Your task to perform on an android device: turn pop-ups off in chrome Image 0: 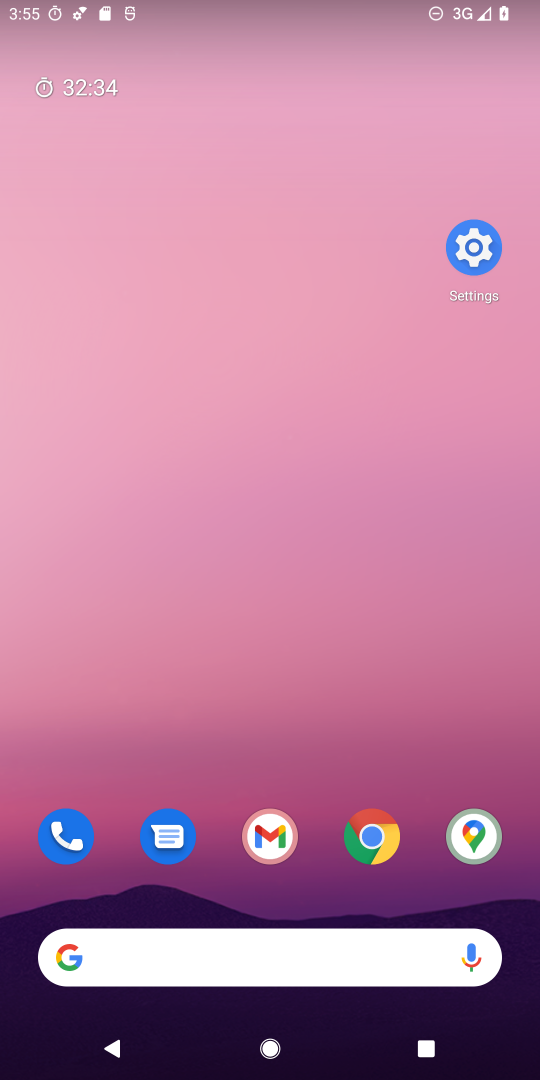
Step 0: click (370, 837)
Your task to perform on an android device: turn pop-ups off in chrome Image 1: 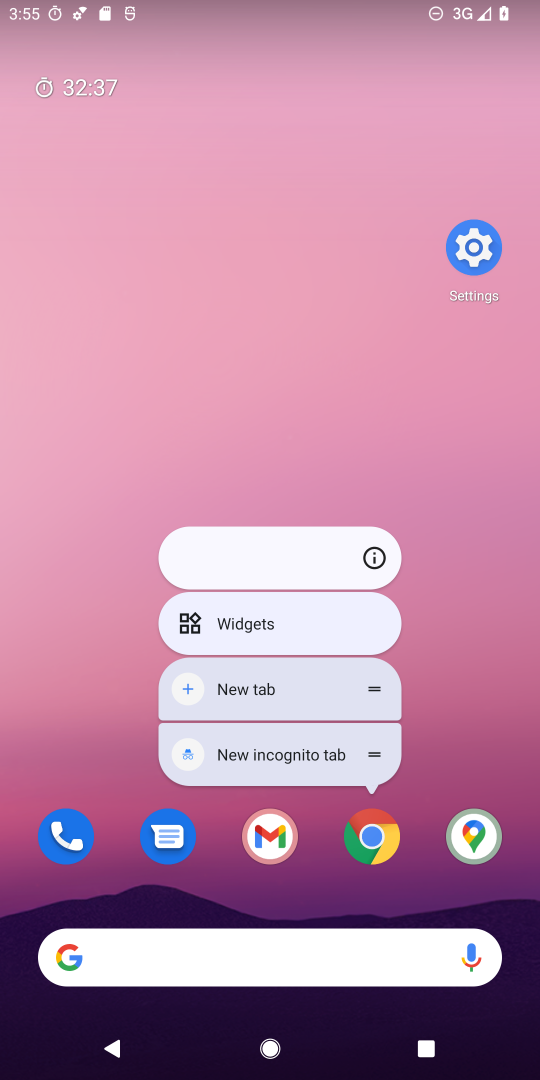
Step 1: click (381, 831)
Your task to perform on an android device: turn pop-ups off in chrome Image 2: 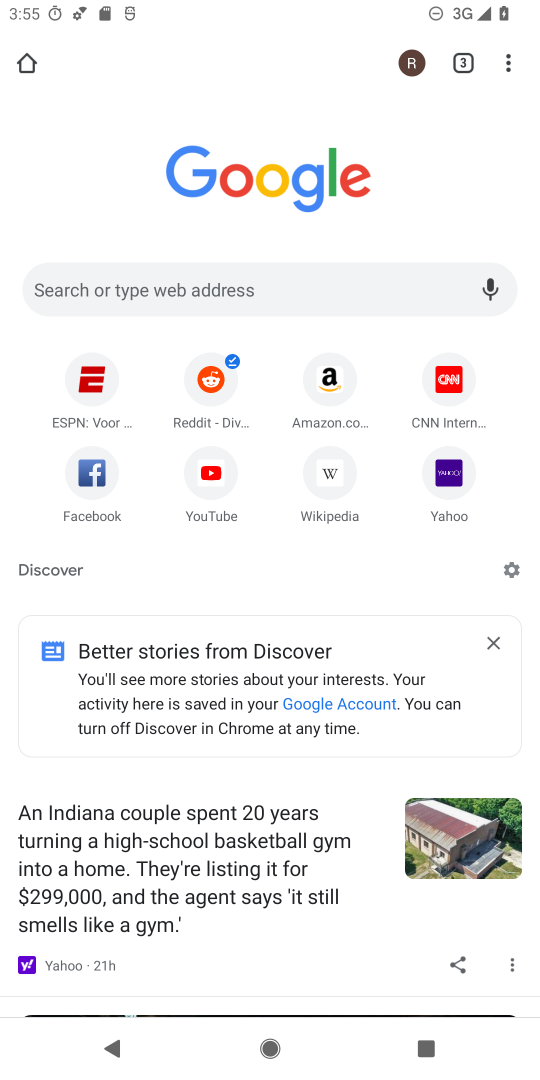
Step 2: click (503, 53)
Your task to perform on an android device: turn pop-ups off in chrome Image 3: 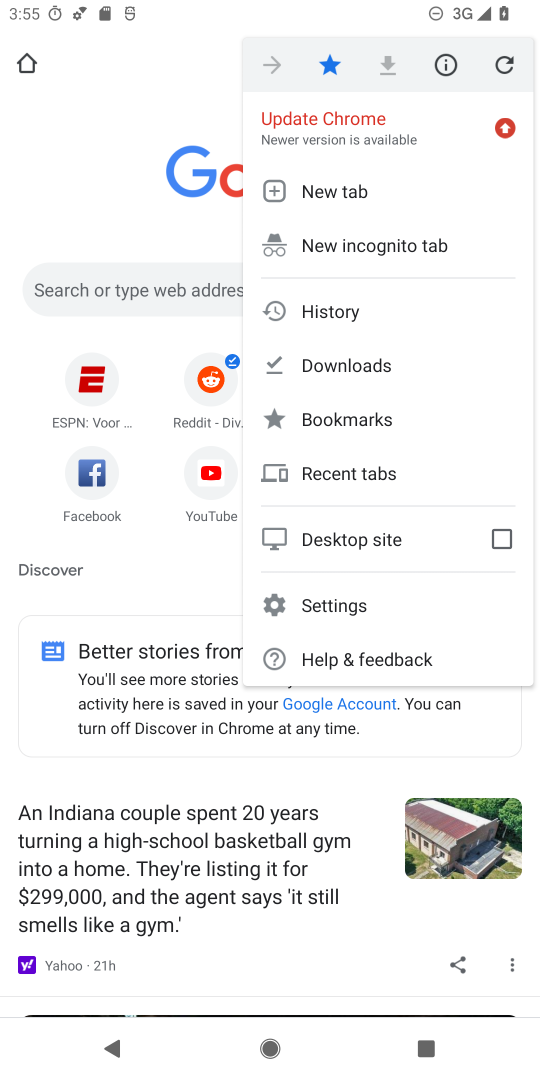
Step 3: click (320, 603)
Your task to perform on an android device: turn pop-ups off in chrome Image 4: 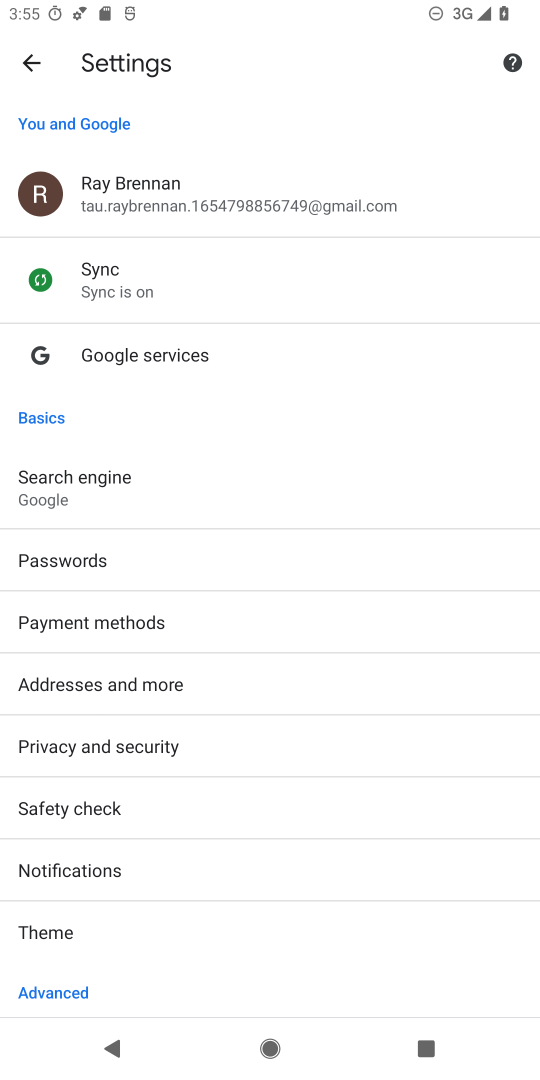
Step 4: drag from (85, 881) to (139, 541)
Your task to perform on an android device: turn pop-ups off in chrome Image 5: 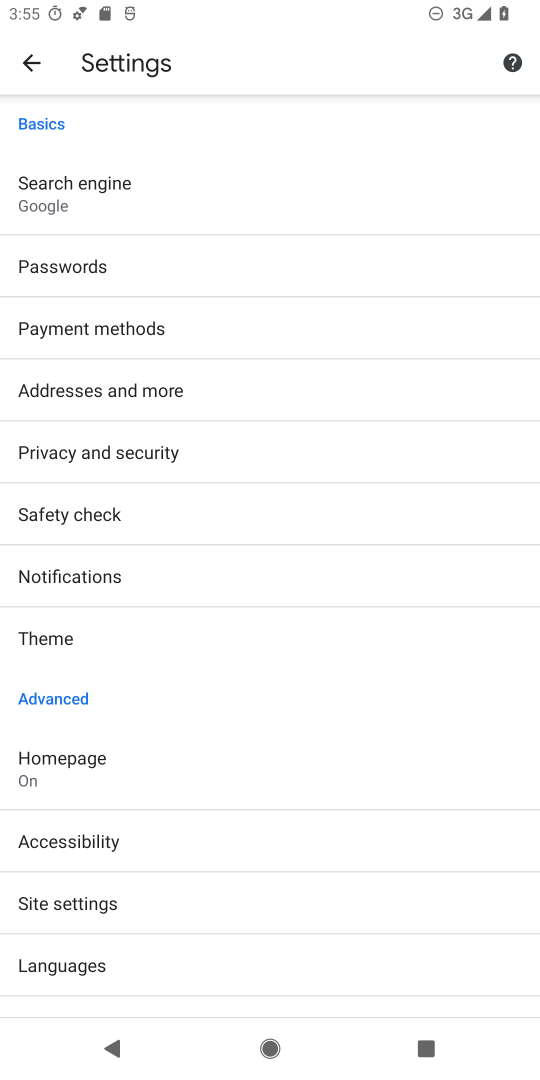
Step 5: click (102, 908)
Your task to perform on an android device: turn pop-ups off in chrome Image 6: 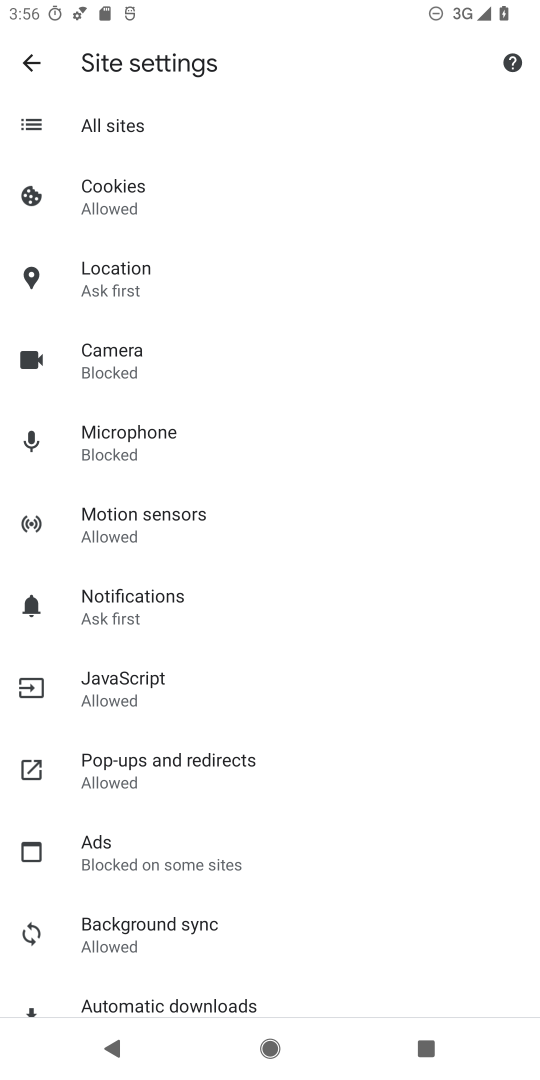
Step 6: click (105, 781)
Your task to perform on an android device: turn pop-ups off in chrome Image 7: 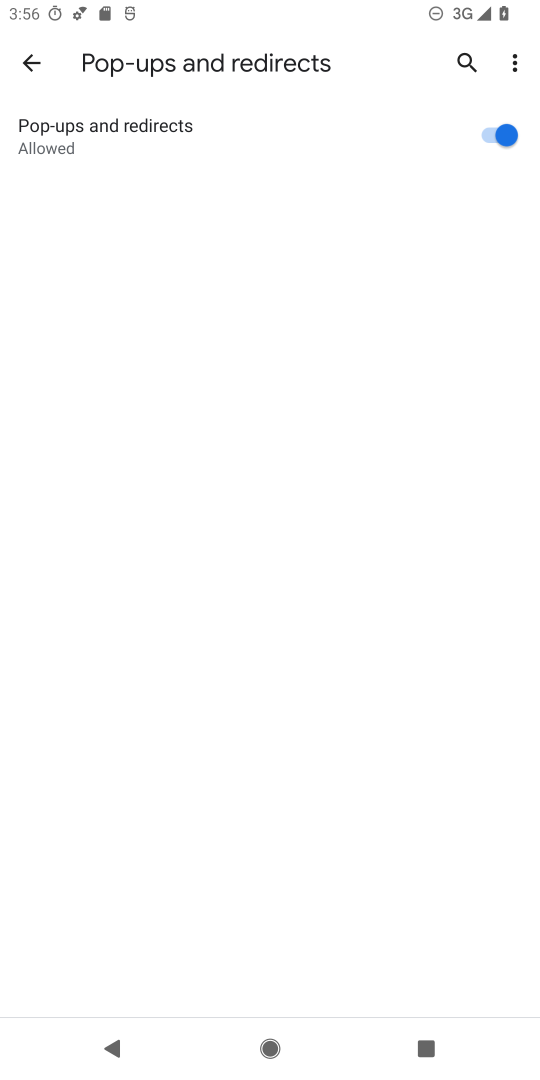
Step 7: click (453, 133)
Your task to perform on an android device: turn pop-ups off in chrome Image 8: 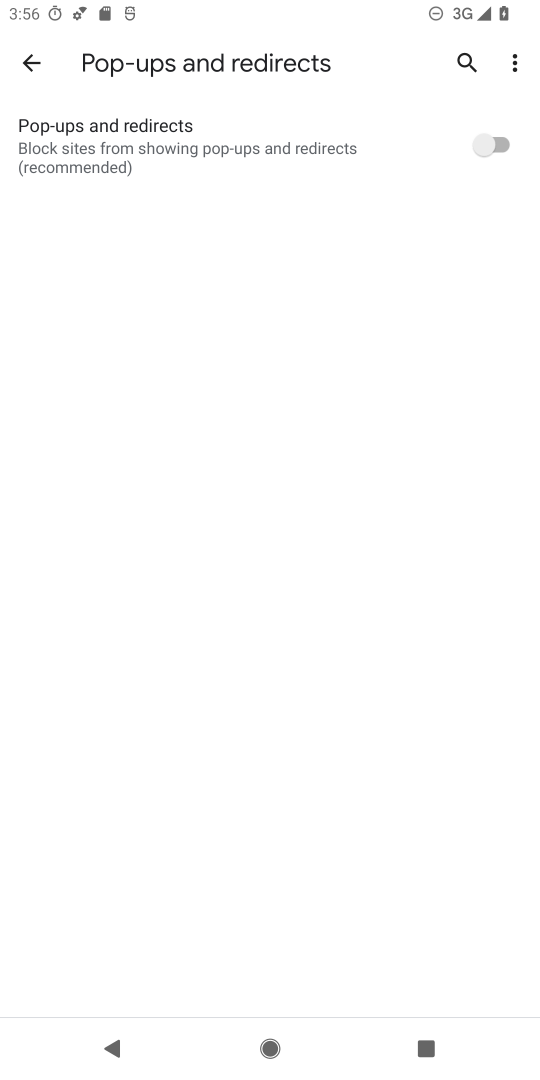
Step 8: task complete